Your task to perform on an android device: change timer sound Image 0: 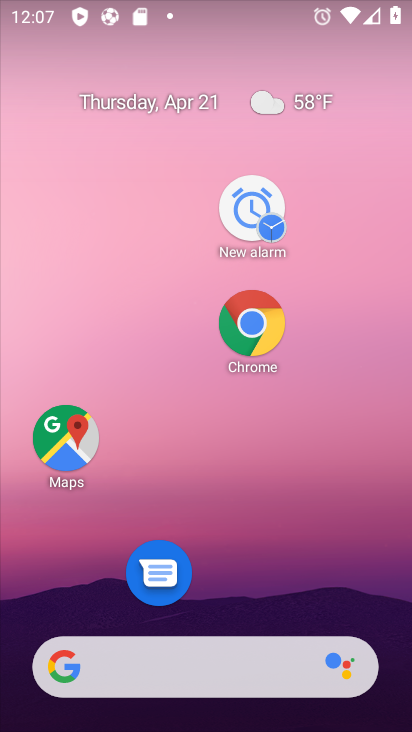
Step 0: drag from (355, 528) to (387, 190)
Your task to perform on an android device: change timer sound Image 1: 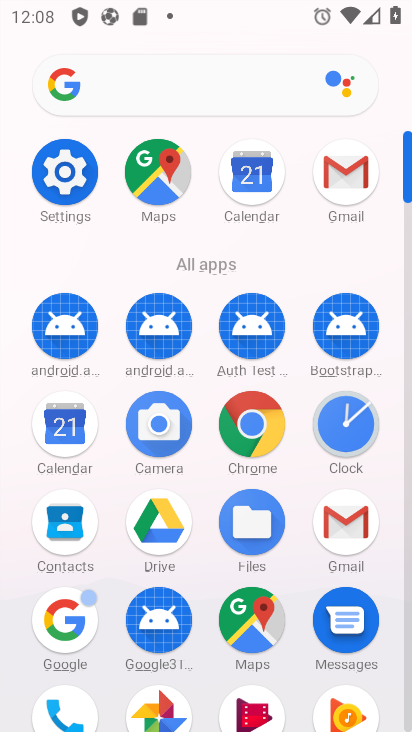
Step 1: drag from (297, 575) to (316, 279)
Your task to perform on an android device: change timer sound Image 2: 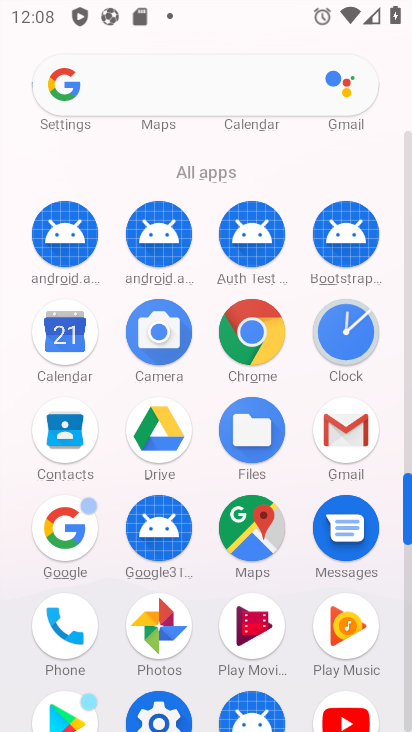
Step 2: click (354, 326)
Your task to perform on an android device: change timer sound Image 3: 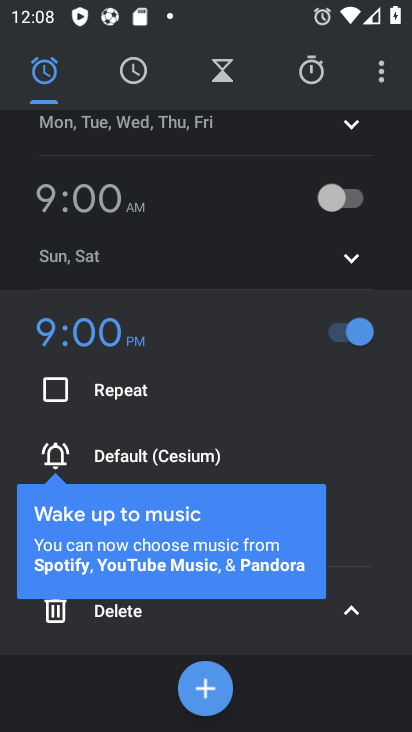
Step 3: click (376, 82)
Your task to perform on an android device: change timer sound Image 4: 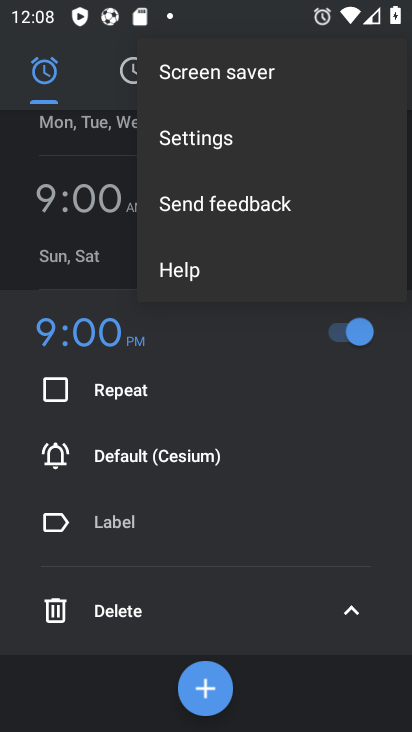
Step 4: click (224, 143)
Your task to perform on an android device: change timer sound Image 5: 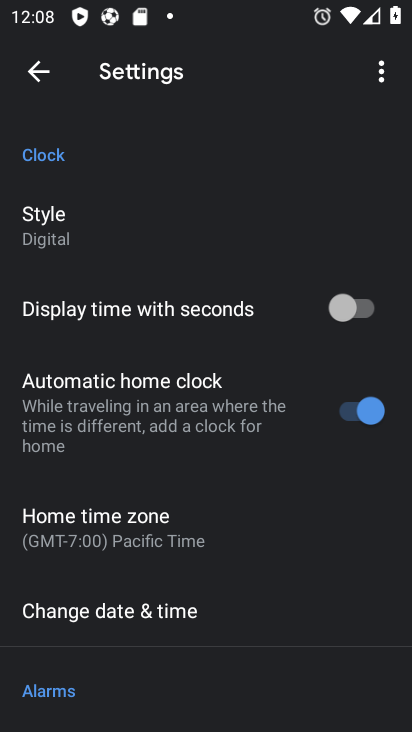
Step 5: drag from (225, 537) to (226, 202)
Your task to perform on an android device: change timer sound Image 6: 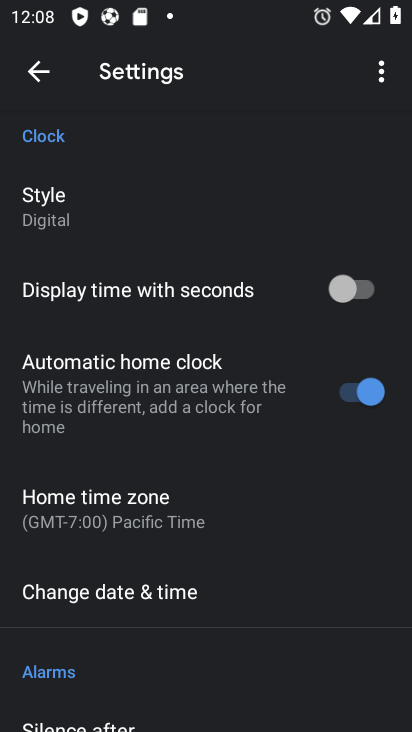
Step 6: drag from (154, 376) to (172, 344)
Your task to perform on an android device: change timer sound Image 7: 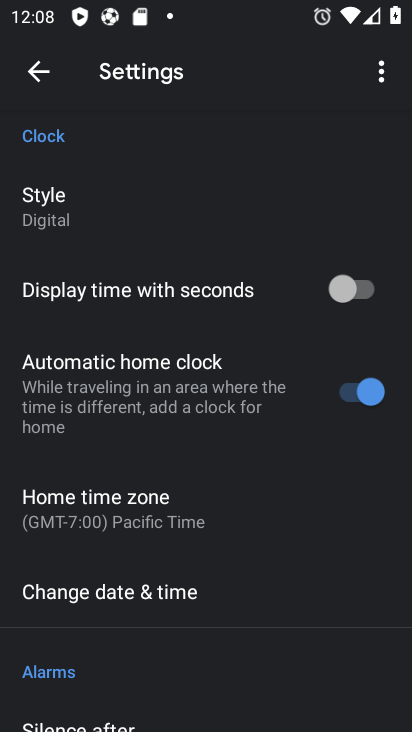
Step 7: click (348, 211)
Your task to perform on an android device: change timer sound Image 8: 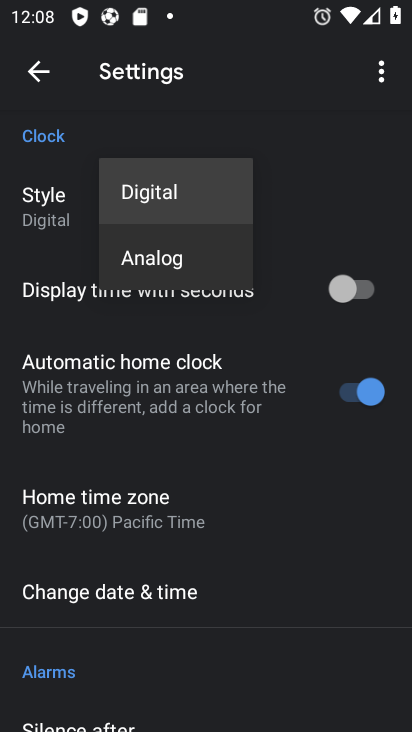
Step 8: drag from (245, 629) to (125, 128)
Your task to perform on an android device: change timer sound Image 9: 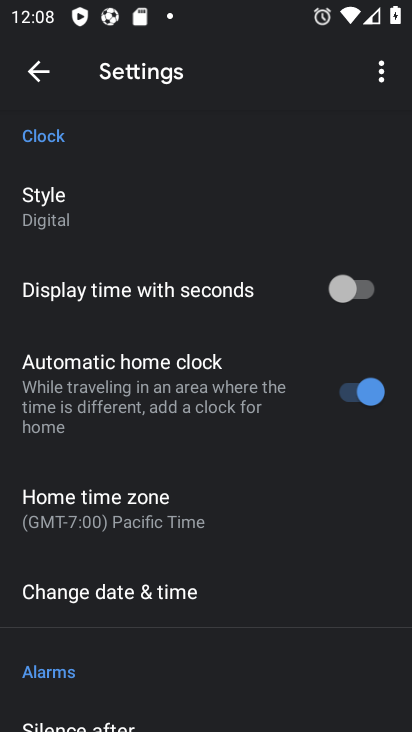
Step 9: drag from (181, 631) to (140, 202)
Your task to perform on an android device: change timer sound Image 10: 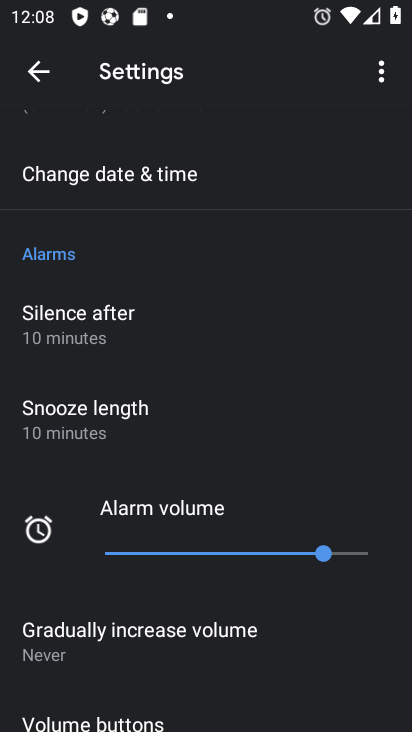
Step 10: drag from (209, 638) to (250, 401)
Your task to perform on an android device: change timer sound Image 11: 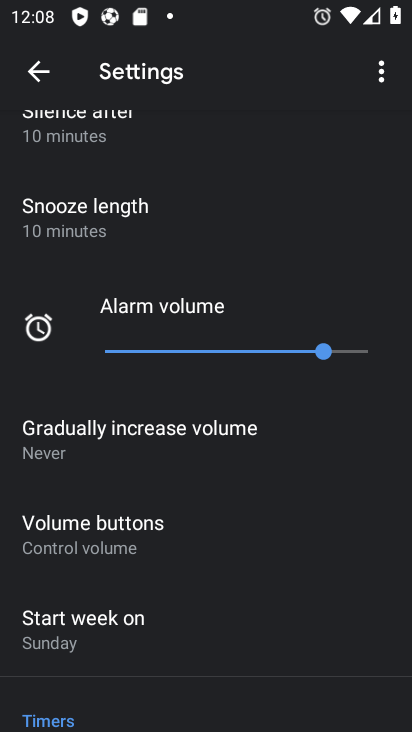
Step 11: drag from (196, 642) to (214, 195)
Your task to perform on an android device: change timer sound Image 12: 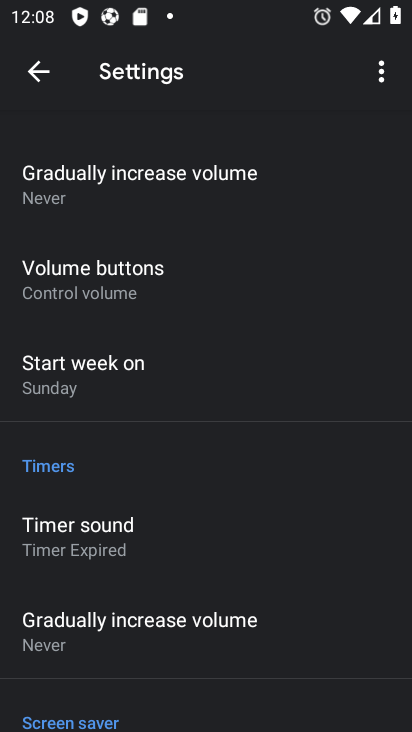
Step 12: drag from (192, 551) to (242, 304)
Your task to perform on an android device: change timer sound Image 13: 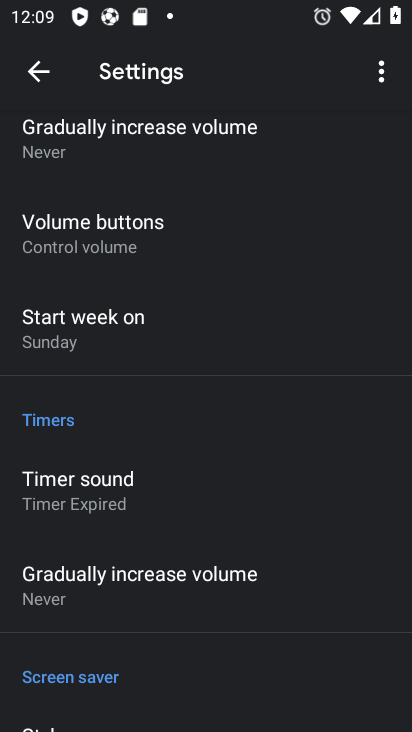
Step 13: click (82, 484)
Your task to perform on an android device: change timer sound Image 14: 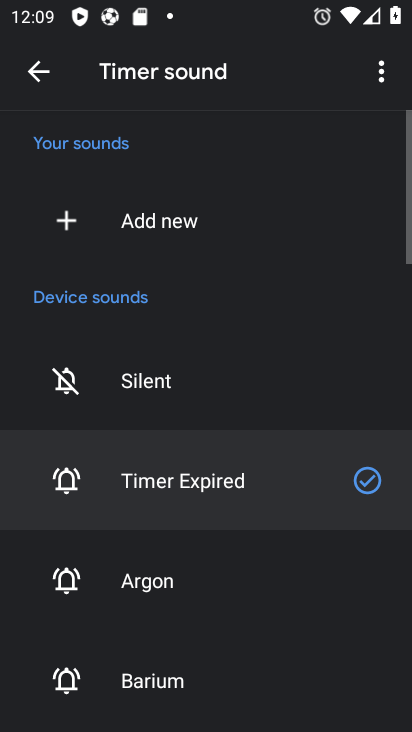
Step 14: click (112, 409)
Your task to perform on an android device: change timer sound Image 15: 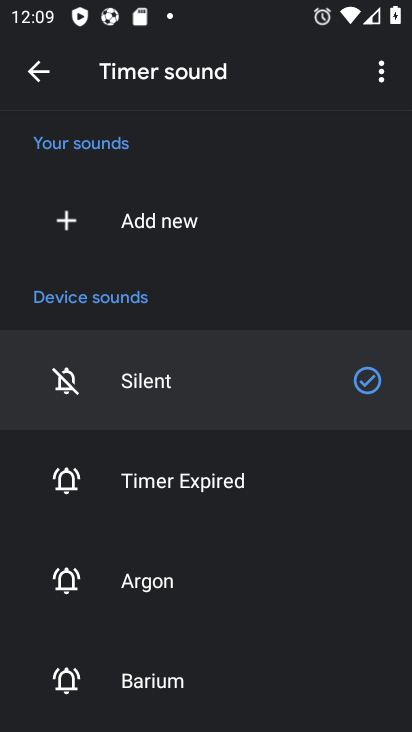
Step 15: click (169, 574)
Your task to perform on an android device: change timer sound Image 16: 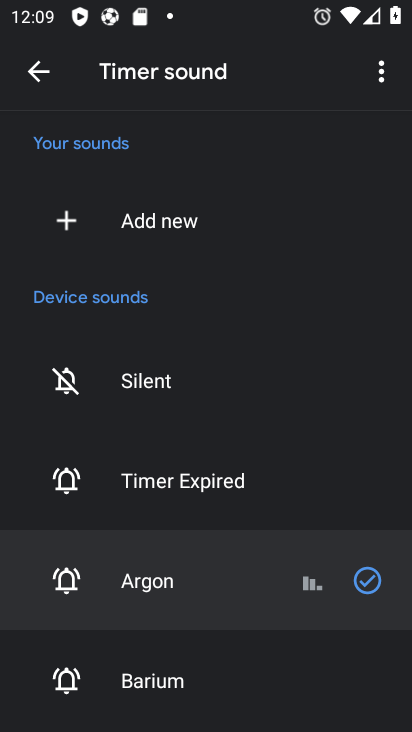
Step 16: task complete